Your task to perform on an android device: Turn on the flashlight Image 0: 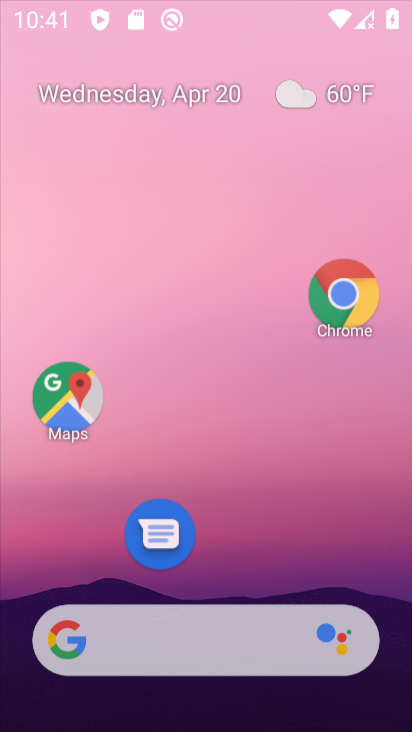
Step 0: drag from (271, 658) to (271, 221)
Your task to perform on an android device: Turn on the flashlight Image 1: 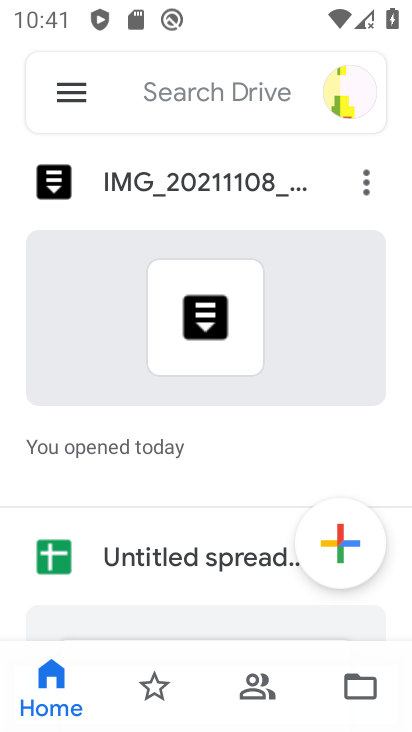
Step 1: task complete